Your task to perform on an android device: Open wifi settings Image 0: 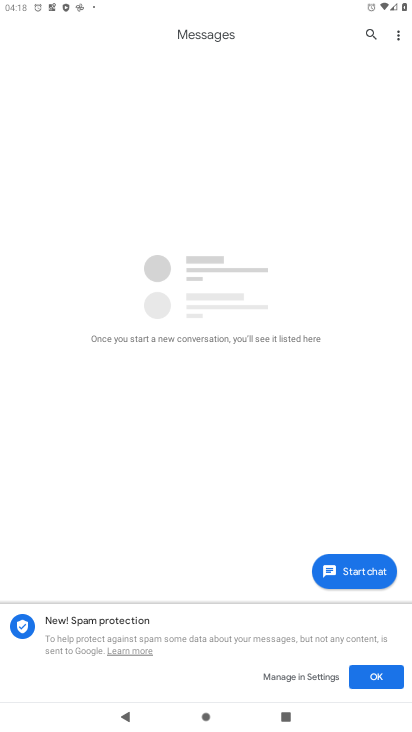
Step 0: press home button
Your task to perform on an android device: Open wifi settings Image 1: 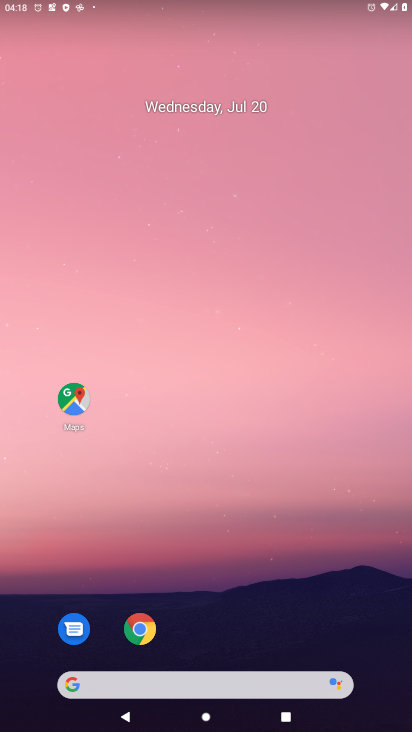
Step 1: drag from (390, 668) to (356, 103)
Your task to perform on an android device: Open wifi settings Image 2: 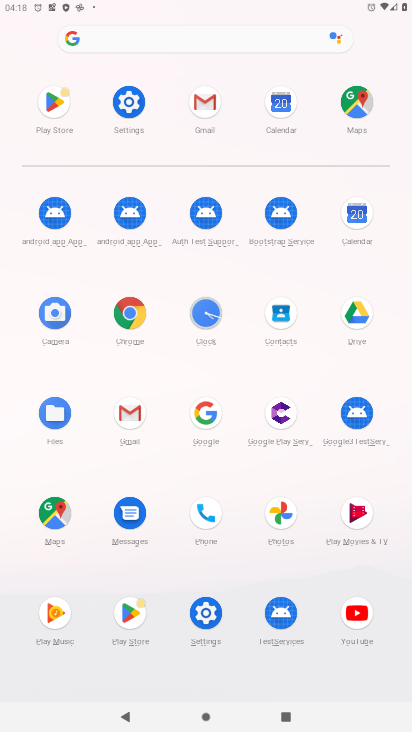
Step 2: click (209, 615)
Your task to perform on an android device: Open wifi settings Image 3: 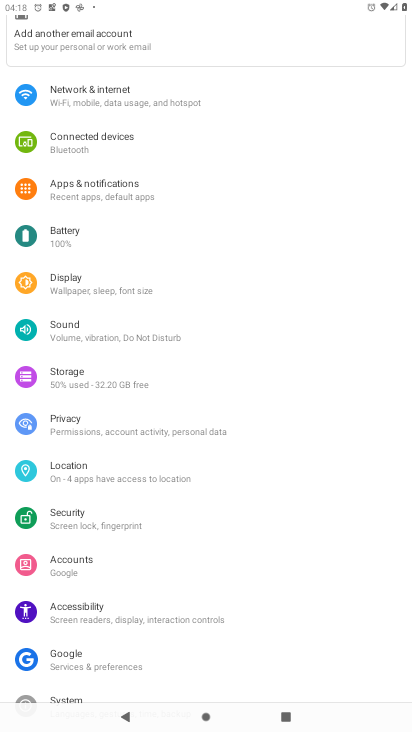
Step 3: click (63, 93)
Your task to perform on an android device: Open wifi settings Image 4: 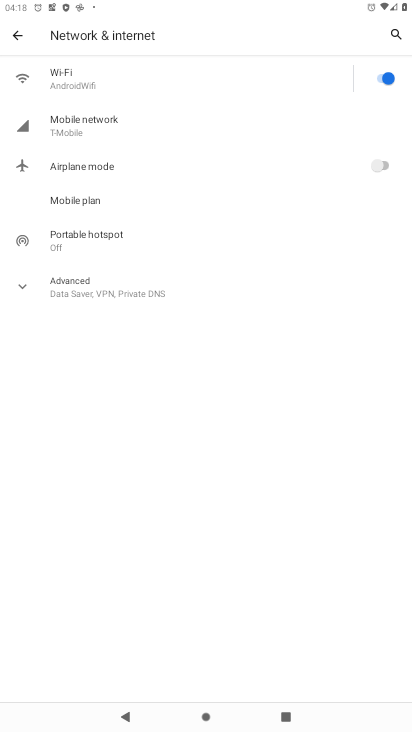
Step 4: click (63, 75)
Your task to perform on an android device: Open wifi settings Image 5: 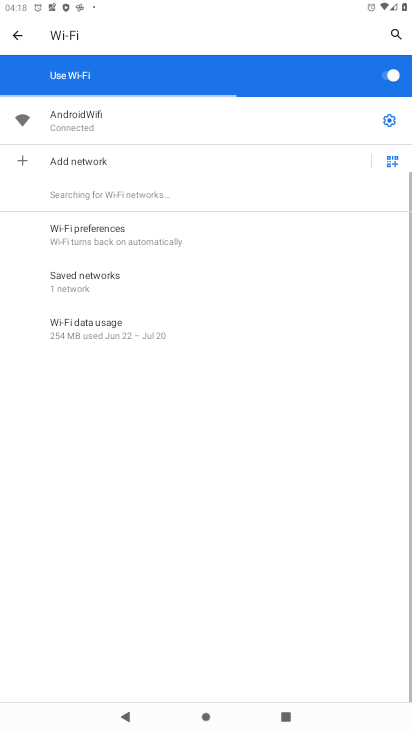
Step 5: click (389, 119)
Your task to perform on an android device: Open wifi settings Image 6: 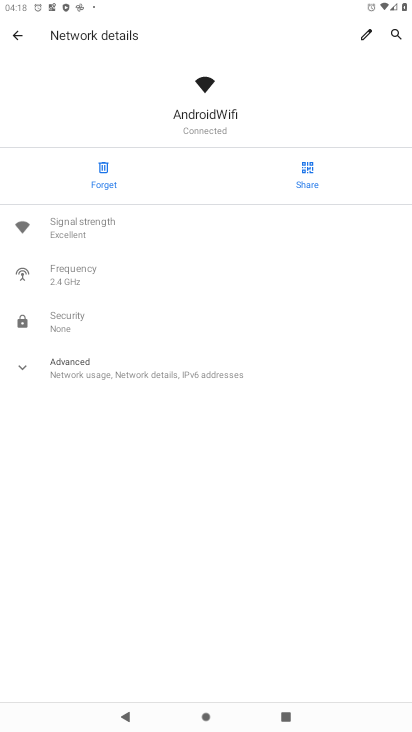
Step 6: task complete